Your task to perform on an android device: delete the emails in spam in the gmail app Image 0: 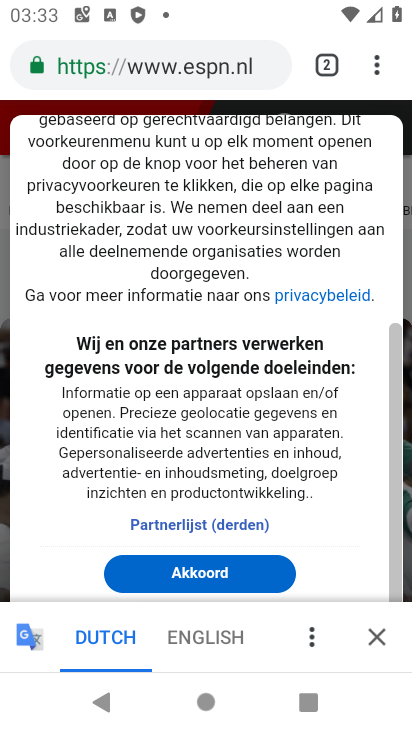
Step 0: press home button
Your task to perform on an android device: delete the emails in spam in the gmail app Image 1: 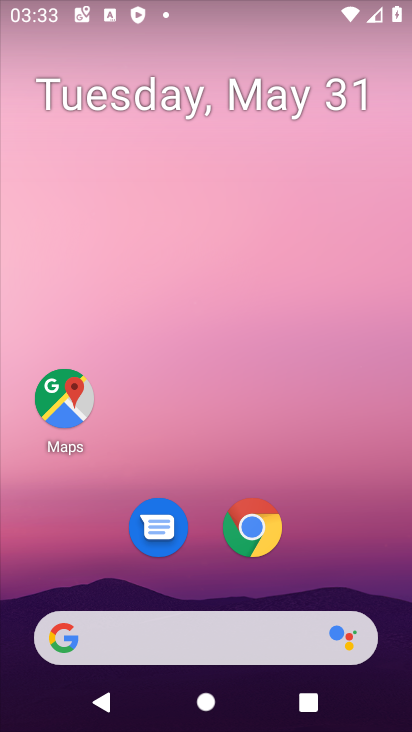
Step 1: drag from (403, 641) to (332, 67)
Your task to perform on an android device: delete the emails in spam in the gmail app Image 2: 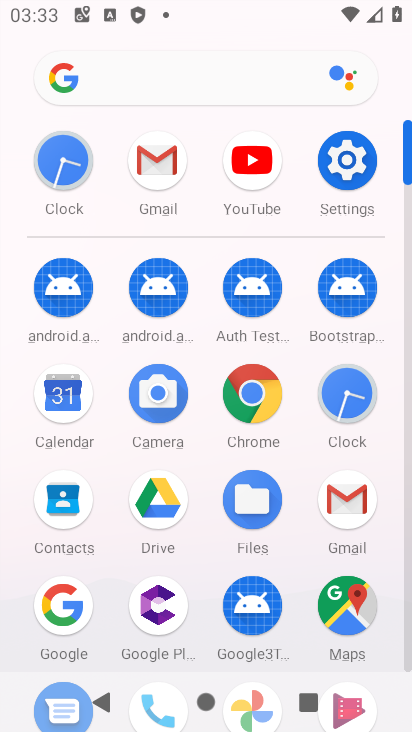
Step 2: click (346, 500)
Your task to perform on an android device: delete the emails in spam in the gmail app Image 3: 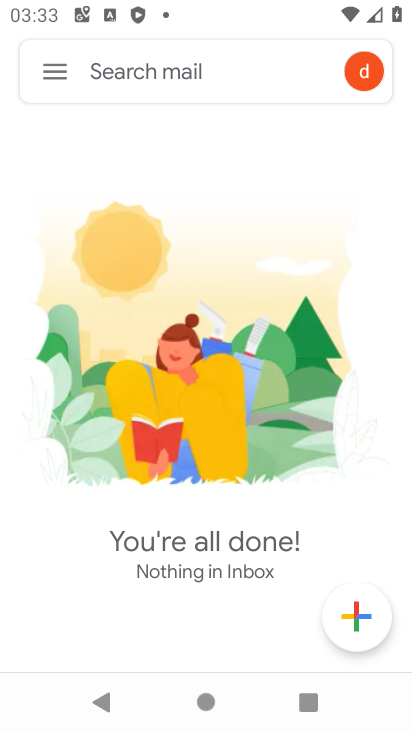
Step 3: click (50, 71)
Your task to perform on an android device: delete the emails in spam in the gmail app Image 4: 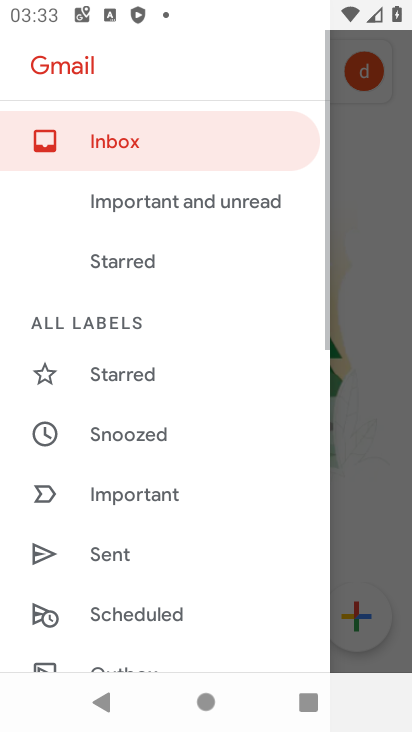
Step 4: drag from (198, 653) to (214, 121)
Your task to perform on an android device: delete the emails in spam in the gmail app Image 5: 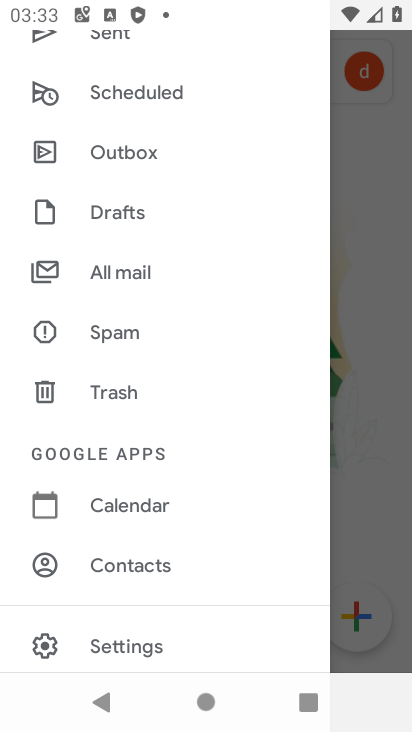
Step 5: click (127, 326)
Your task to perform on an android device: delete the emails in spam in the gmail app Image 6: 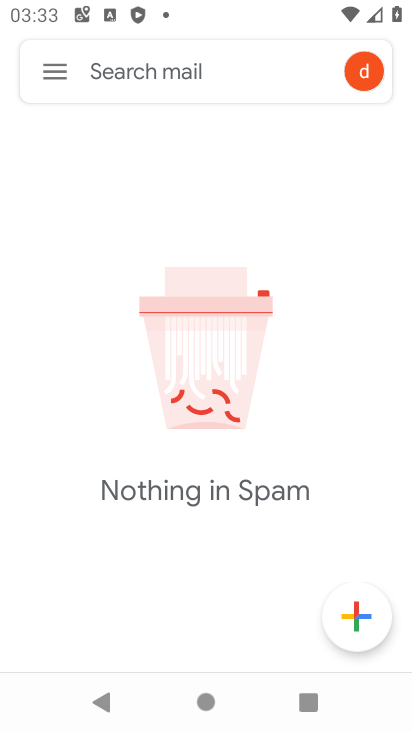
Step 6: task complete